Your task to perform on an android device: Check the news Image 0: 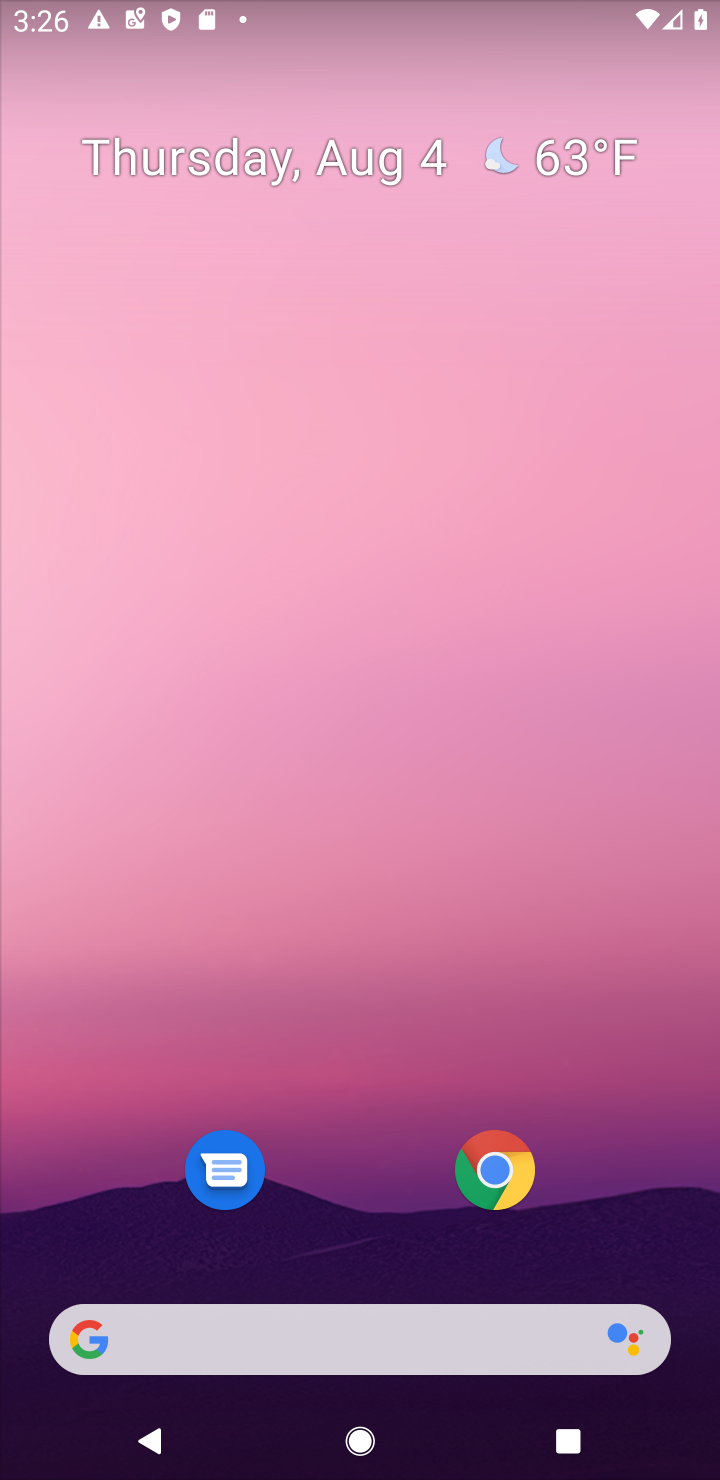
Step 0: drag from (63, 605) to (708, 647)
Your task to perform on an android device: Check the news Image 1: 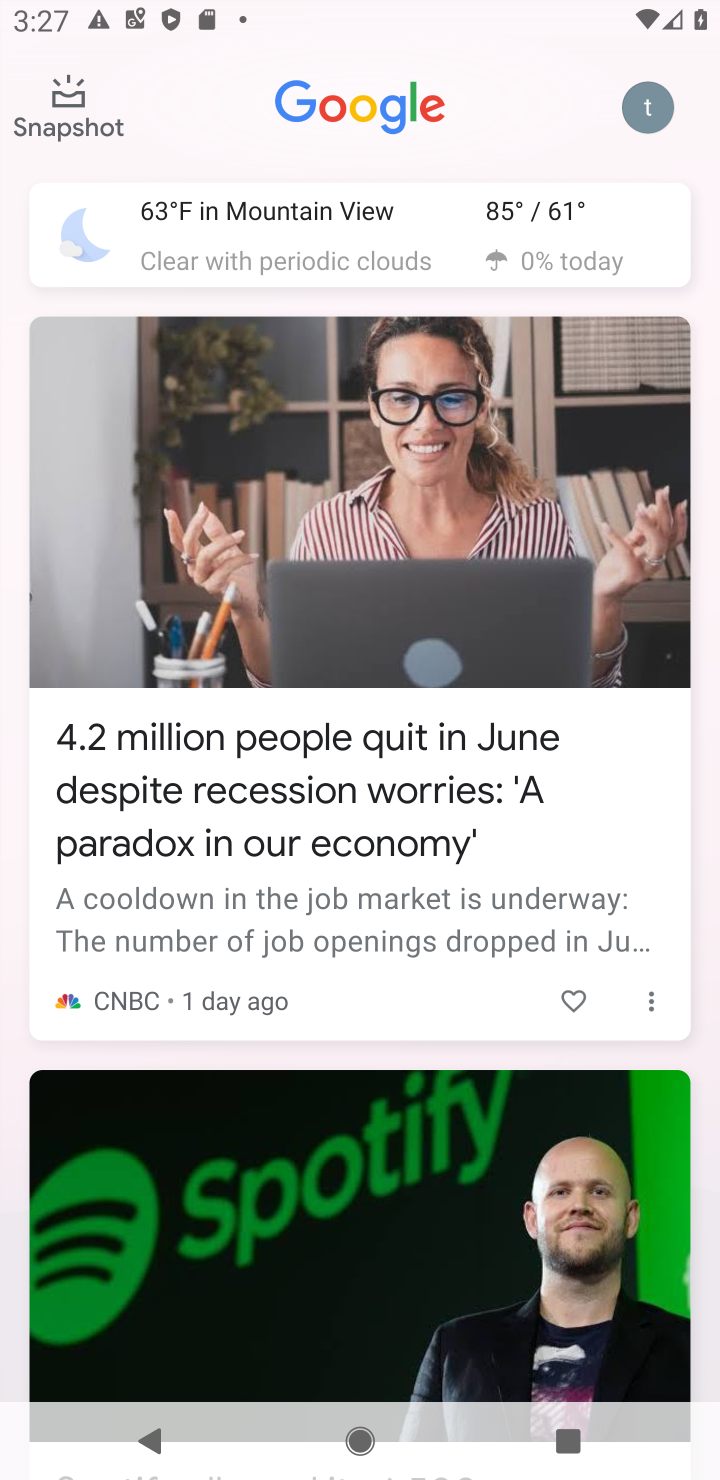
Step 1: task complete